Your task to perform on an android device: open app "Spotify: Music and Podcasts" (install if not already installed) Image 0: 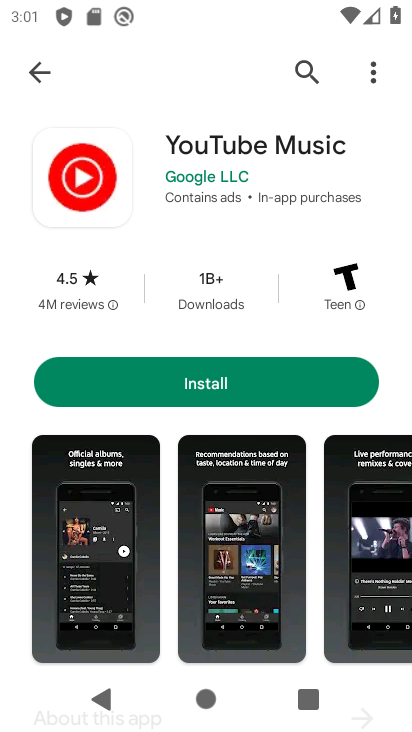
Step 0: press home button
Your task to perform on an android device: open app "Spotify: Music and Podcasts" (install if not already installed) Image 1: 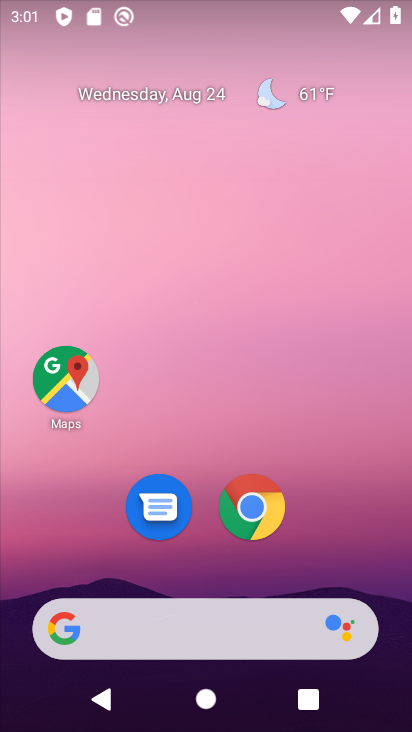
Step 1: drag from (165, 636) to (266, 17)
Your task to perform on an android device: open app "Spotify: Music and Podcasts" (install if not already installed) Image 2: 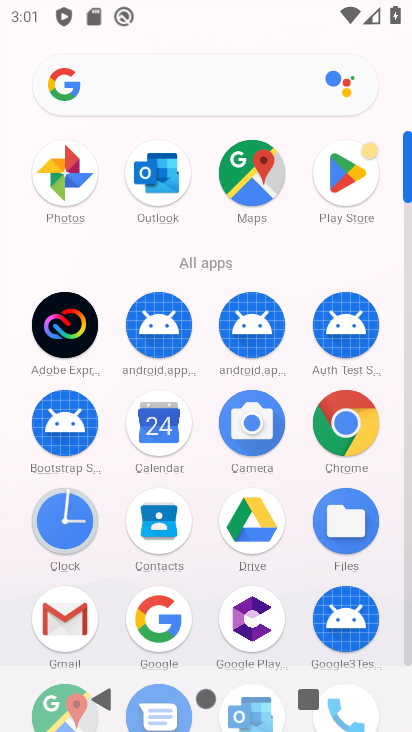
Step 2: click (347, 173)
Your task to perform on an android device: open app "Spotify: Music and Podcasts" (install if not already installed) Image 3: 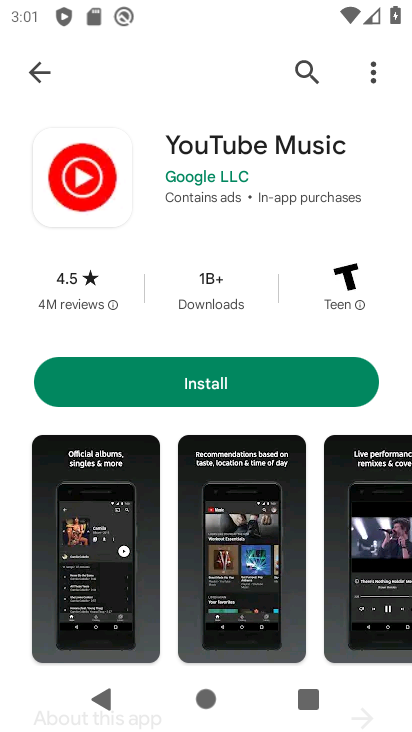
Step 3: press back button
Your task to perform on an android device: open app "Spotify: Music and Podcasts" (install if not already installed) Image 4: 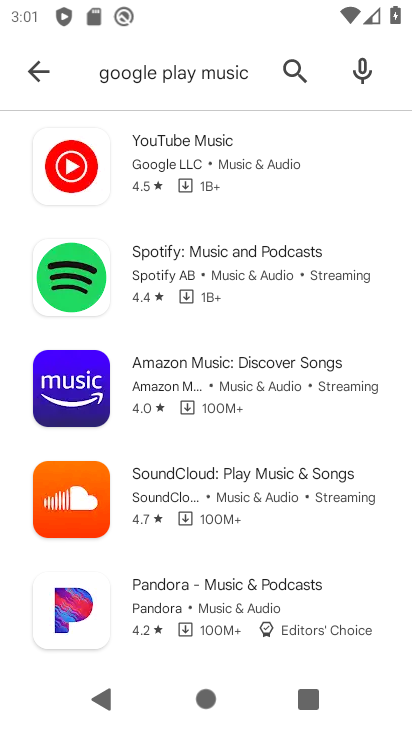
Step 4: press back button
Your task to perform on an android device: open app "Spotify: Music and Podcasts" (install if not already installed) Image 5: 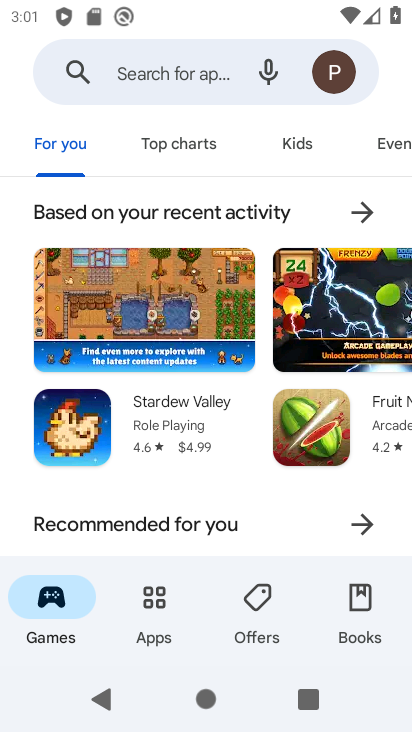
Step 5: click (199, 70)
Your task to perform on an android device: open app "Spotify: Music and Podcasts" (install if not already installed) Image 6: 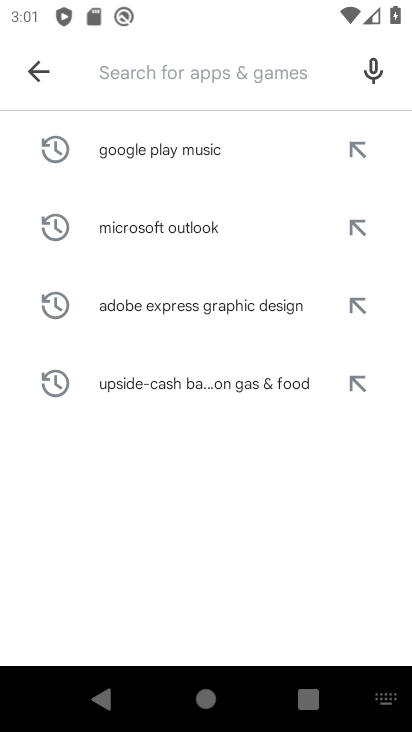
Step 6: type "Spotify : Music and Podcasts"
Your task to perform on an android device: open app "Spotify: Music and Podcasts" (install if not already installed) Image 7: 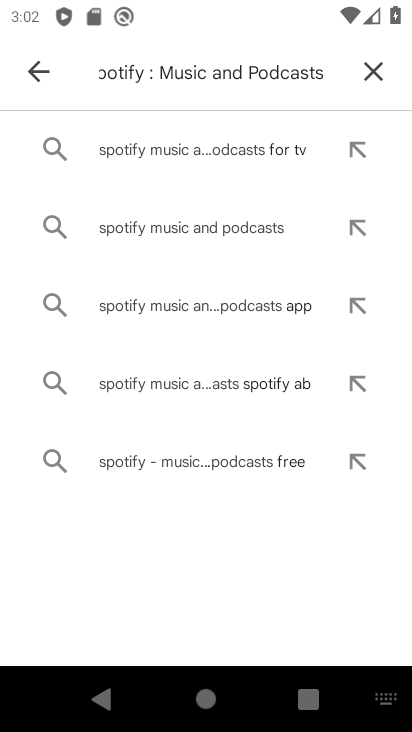
Step 7: click (297, 157)
Your task to perform on an android device: open app "Spotify: Music and Podcasts" (install if not already installed) Image 8: 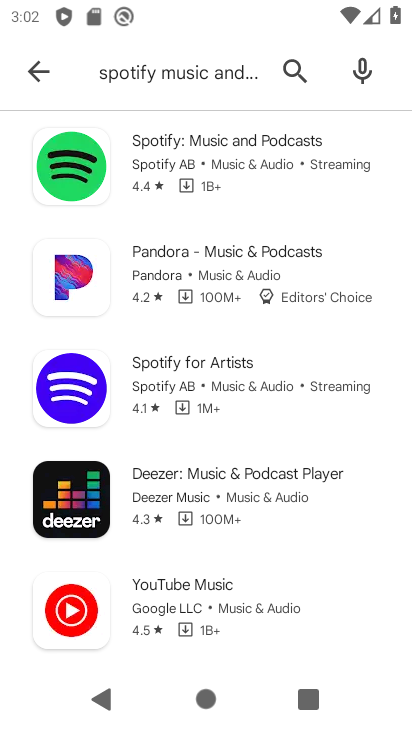
Step 8: click (252, 144)
Your task to perform on an android device: open app "Spotify: Music and Podcasts" (install if not already installed) Image 9: 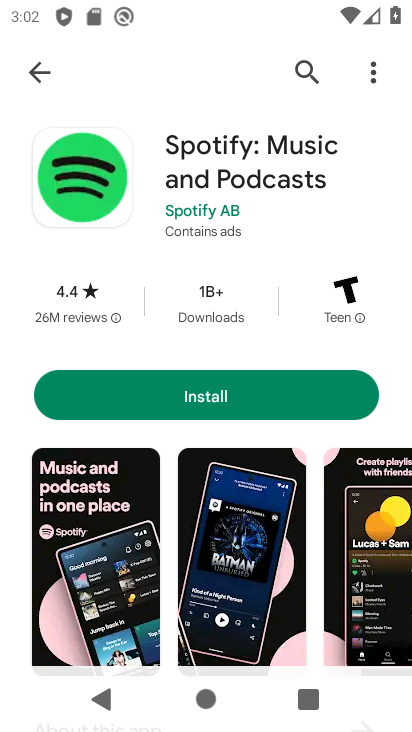
Step 9: click (198, 395)
Your task to perform on an android device: open app "Spotify: Music and Podcasts" (install if not already installed) Image 10: 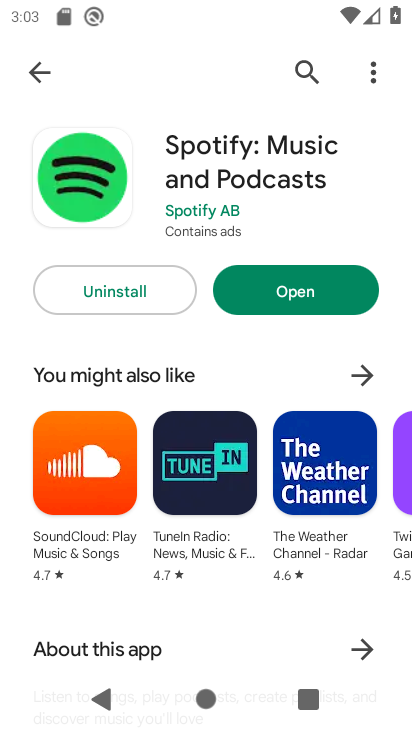
Step 10: click (322, 292)
Your task to perform on an android device: open app "Spotify: Music and Podcasts" (install if not already installed) Image 11: 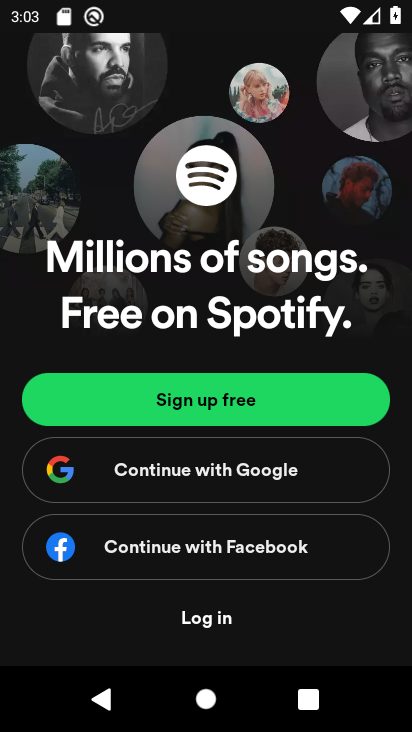
Step 11: task complete